Your task to perform on an android device: check battery use Image 0: 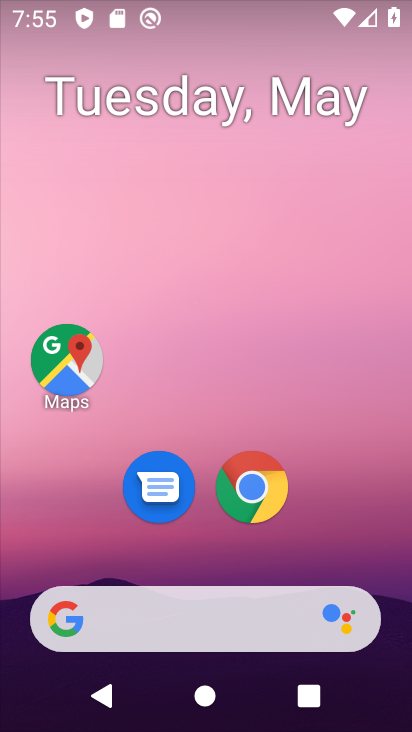
Step 0: drag from (298, 503) to (318, 62)
Your task to perform on an android device: check battery use Image 1: 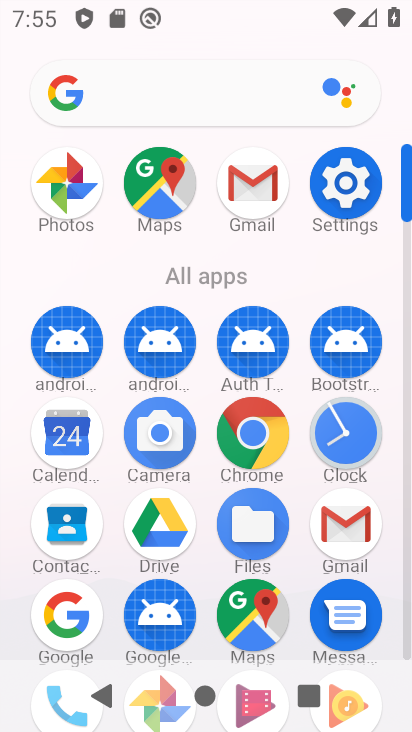
Step 1: click (355, 186)
Your task to perform on an android device: check battery use Image 2: 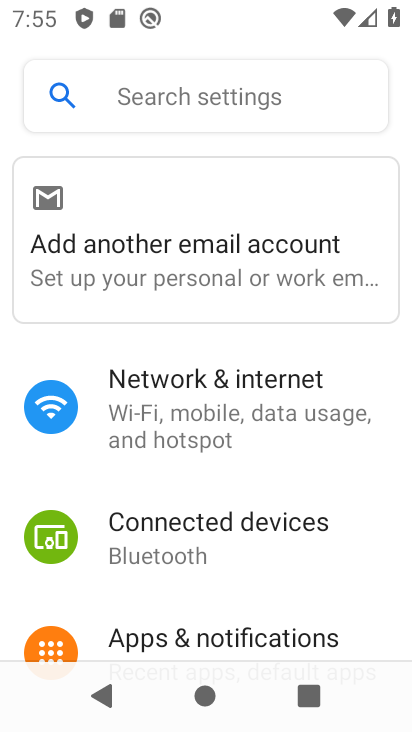
Step 2: drag from (368, 582) to (380, 202)
Your task to perform on an android device: check battery use Image 3: 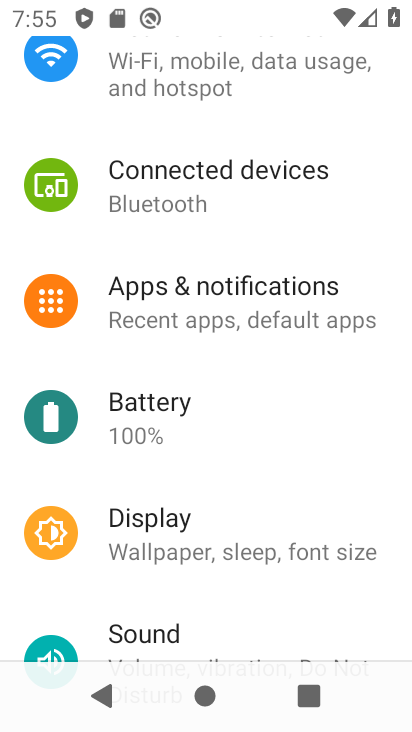
Step 3: click (167, 395)
Your task to perform on an android device: check battery use Image 4: 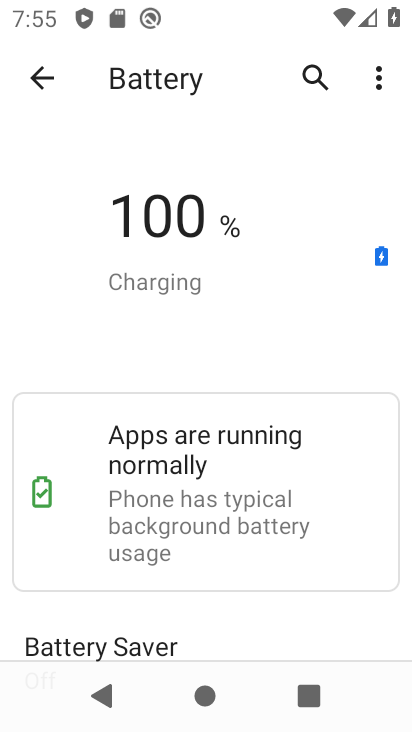
Step 4: task complete